Your task to perform on an android device: toggle translation in the chrome app Image 0: 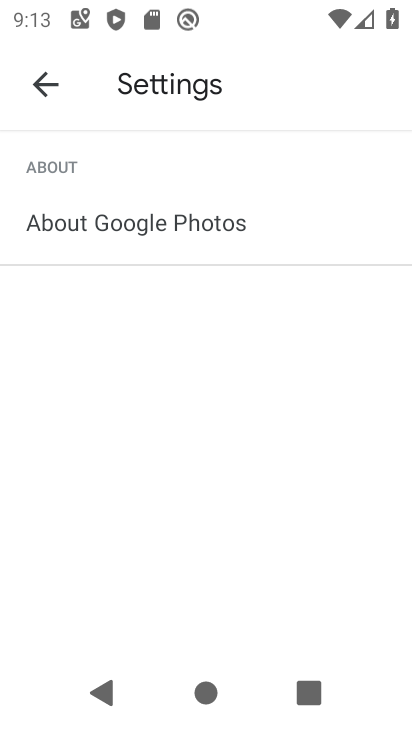
Step 0: press home button
Your task to perform on an android device: toggle translation in the chrome app Image 1: 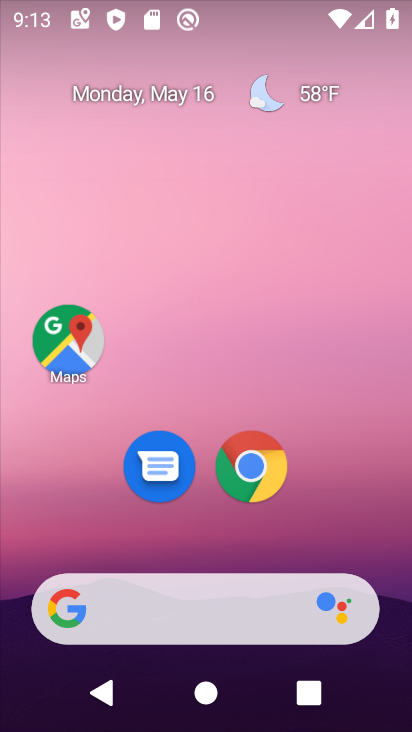
Step 1: click (260, 457)
Your task to perform on an android device: toggle translation in the chrome app Image 2: 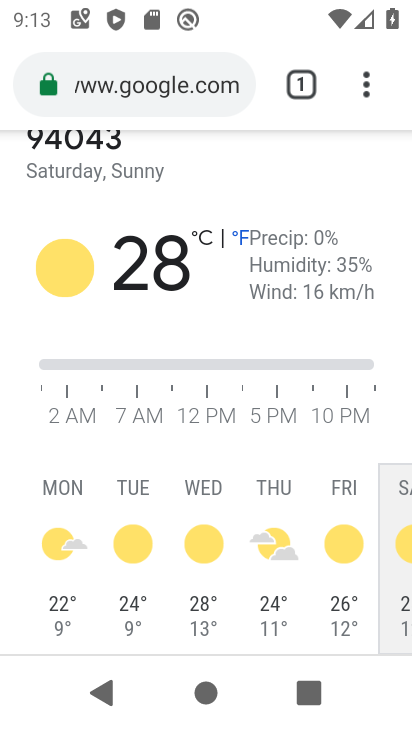
Step 2: drag from (365, 84) to (137, 525)
Your task to perform on an android device: toggle translation in the chrome app Image 3: 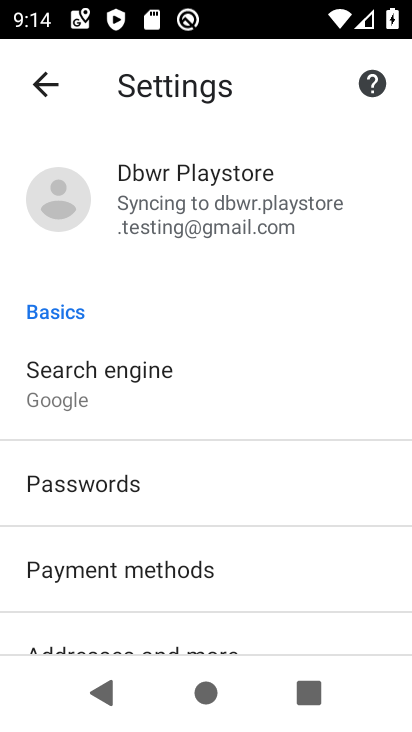
Step 3: drag from (320, 602) to (346, 272)
Your task to perform on an android device: toggle translation in the chrome app Image 4: 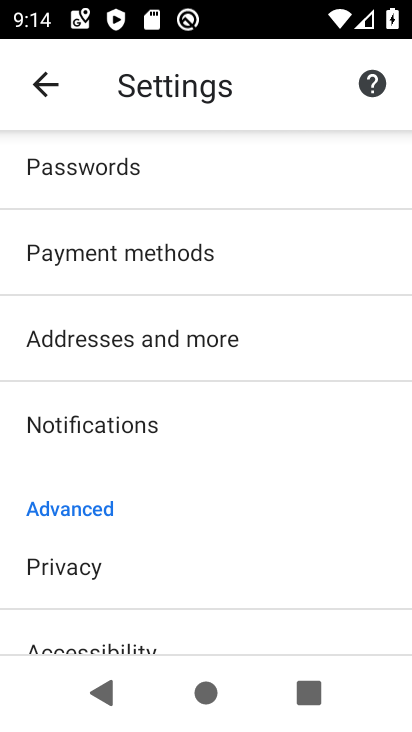
Step 4: drag from (253, 567) to (296, 229)
Your task to perform on an android device: toggle translation in the chrome app Image 5: 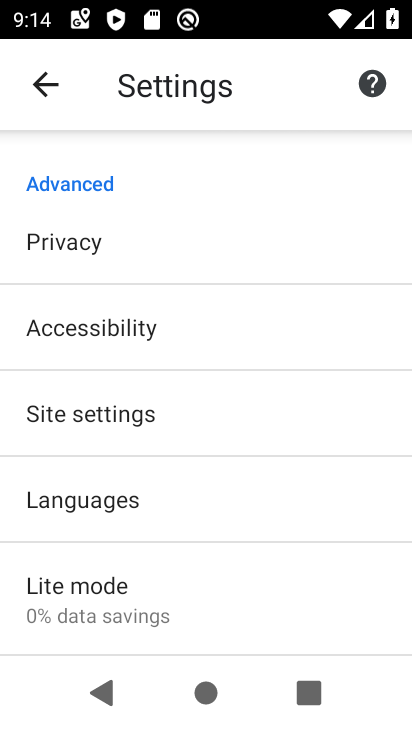
Step 5: click (121, 495)
Your task to perform on an android device: toggle translation in the chrome app Image 6: 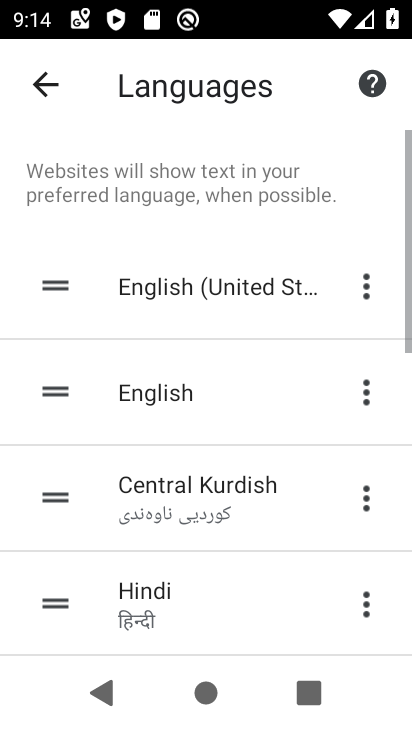
Step 6: drag from (301, 546) to (330, 241)
Your task to perform on an android device: toggle translation in the chrome app Image 7: 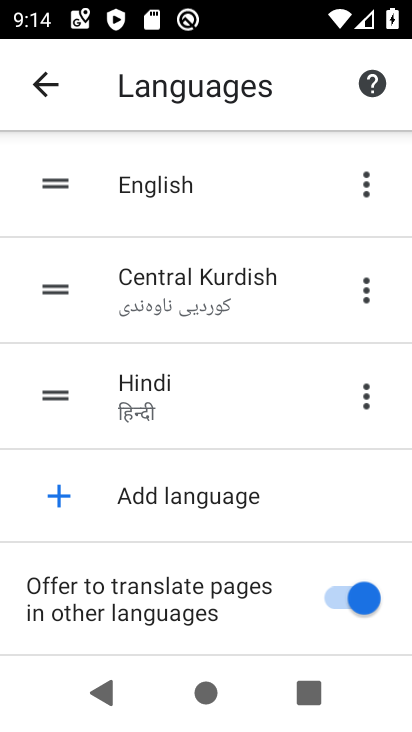
Step 7: click (364, 605)
Your task to perform on an android device: toggle translation in the chrome app Image 8: 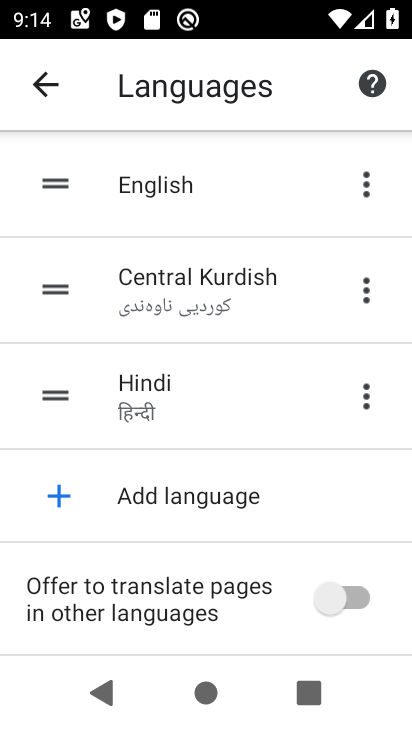
Step 8: task complete